Your task to perform on an android device: choose inbox layout in the gmail app Image 0: 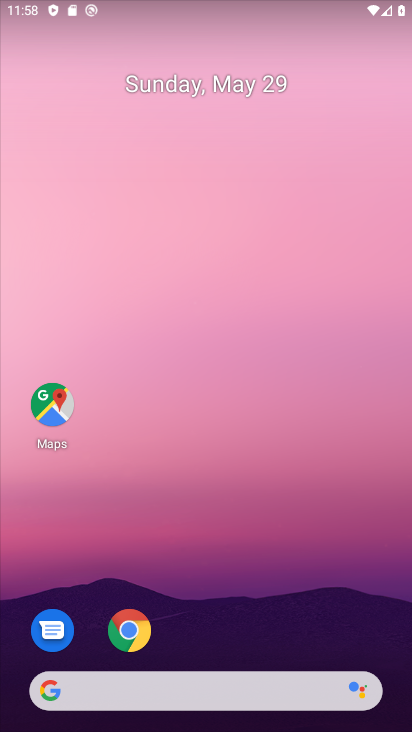
Step 0: drag from (116, 713) to (136, 49)
Your task to perform on an android device: choose inbox layout in the gmail app Image 1: 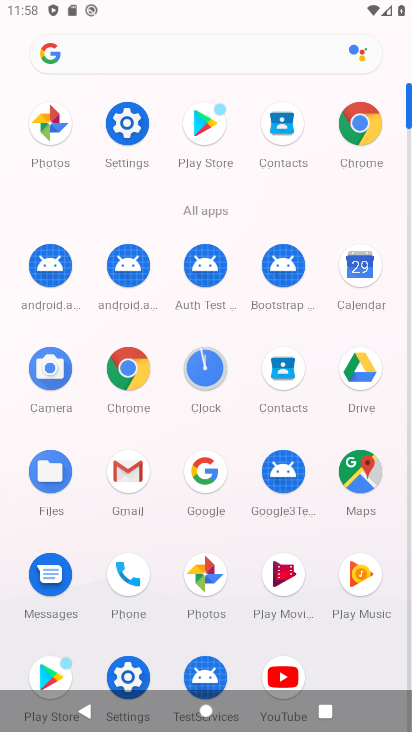
Step 1: click (115, 470)
Your task to perform on an android device: choose inbox layout in the gmail app Image 2: 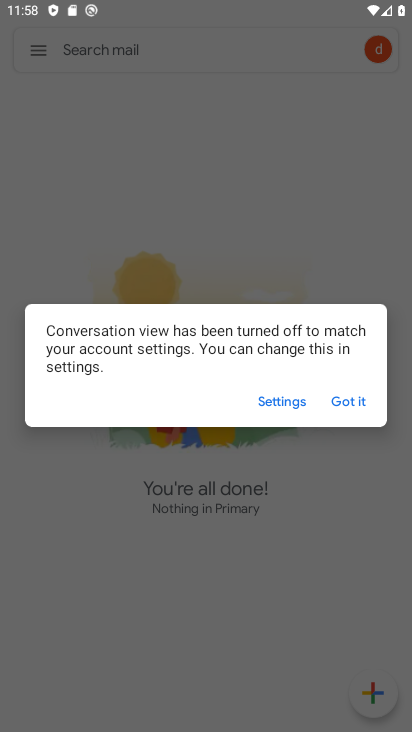
Step 2: click (342, 410)
Your task to perform on an android device: choose inbox layout in the gmail app Image 3: 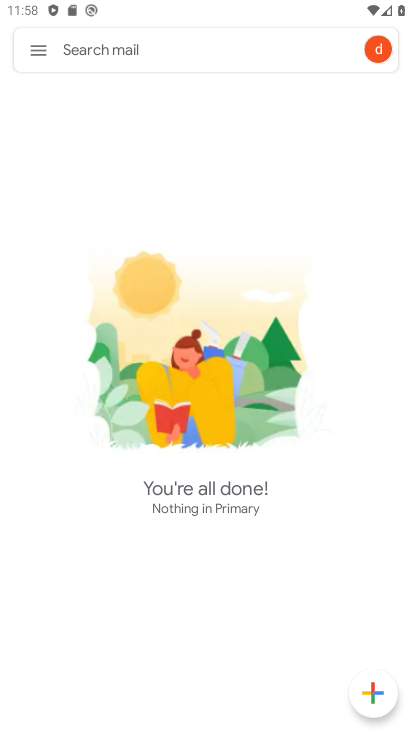
Step 3: click (31, 61)
Your task to perform on an android device: choose inbox layout in the gmail app Image 4: 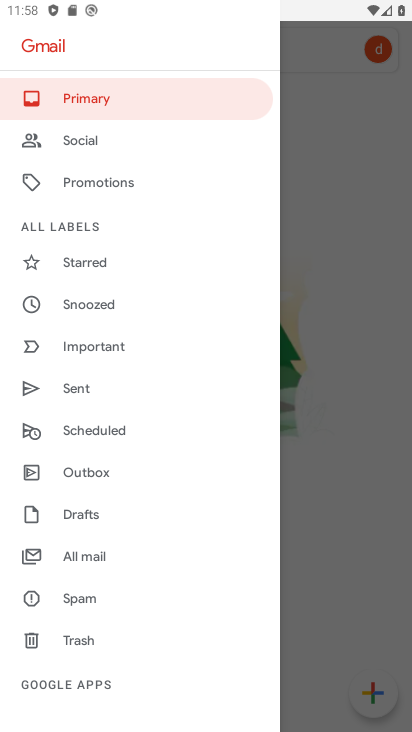
Step 4: drag from (72, 705) to (76, 237)
Your task to perform on an android device: choose inbox layout in the gmail app Image 5: 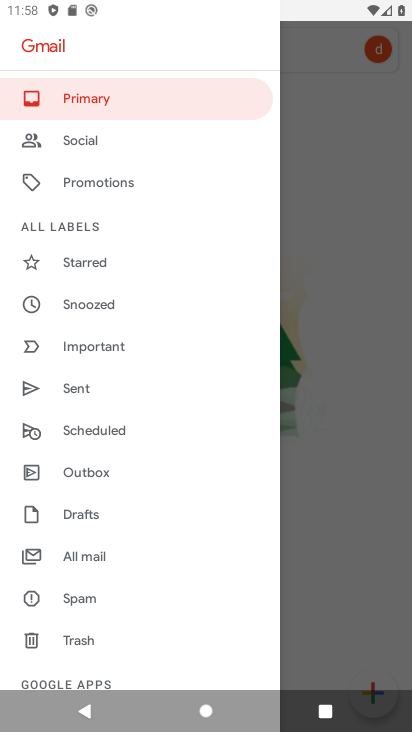
Step 5: drag from (176, 644) to (169, 152)
Your task to perform on an android device: choose inbox layout in the gmail app Image 6: 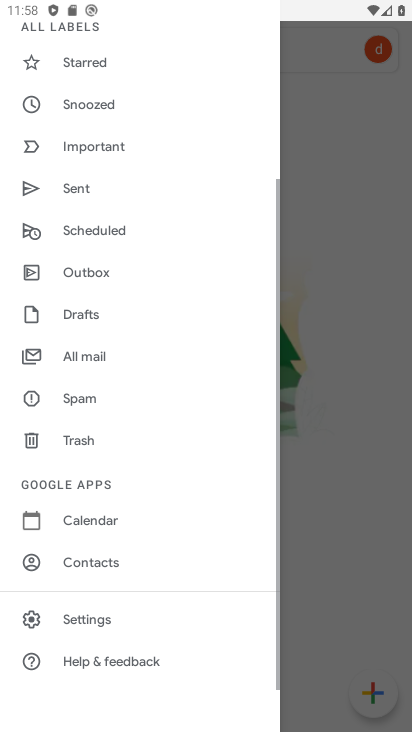
Step 6: click (82, 618)
Your task to perform on an android device: choose inbox layout in the gmail app Image 7: 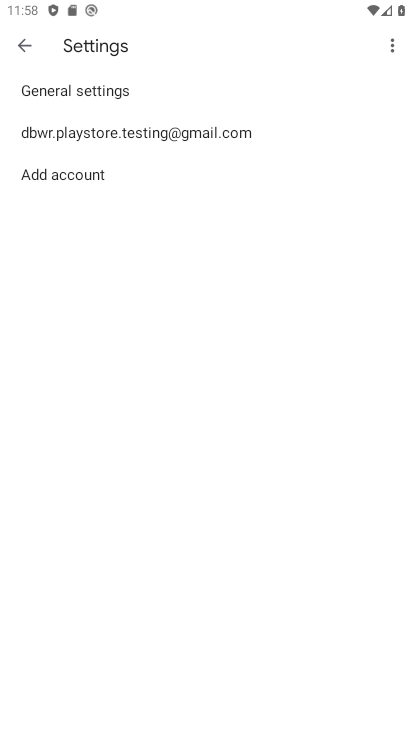
Step 7: click (122, 132)
Your task to perform on an android device: choose inbox layout in the gmail app Image 8: 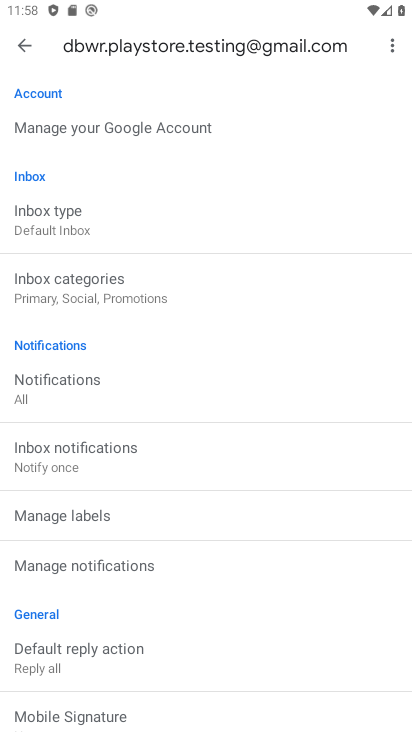
Step 8: click (98, 229)
Your task to perform on an android device: choose inbox layout in the gmail app Image 9: 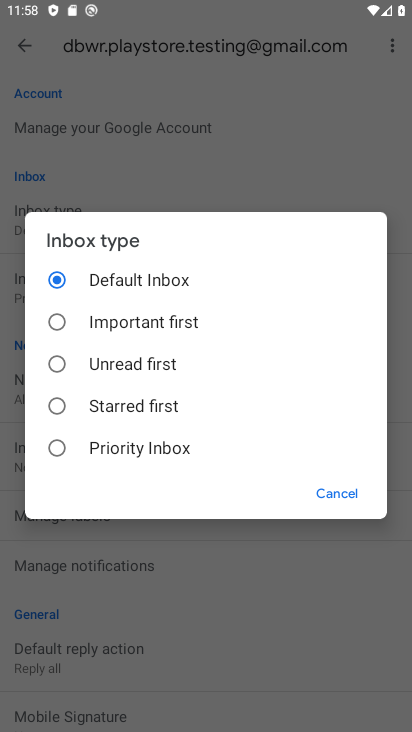
Step 9: task complete